Your task to perform on an android device: toggle sleep mode Image 0: 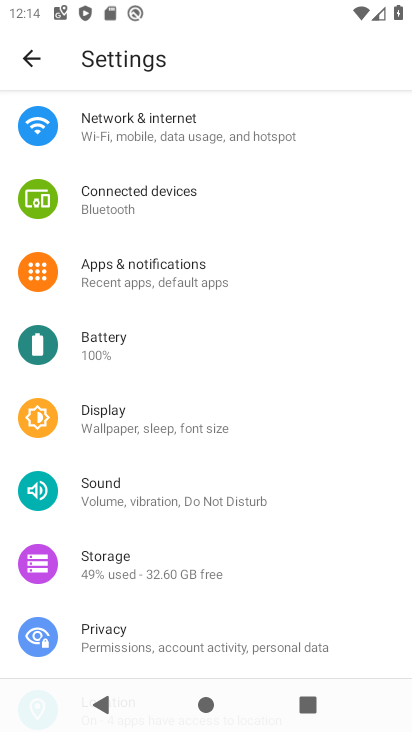
Step 0: click (90, 420)
Your task to perform on an android device: toggle sleep mode Image 1: 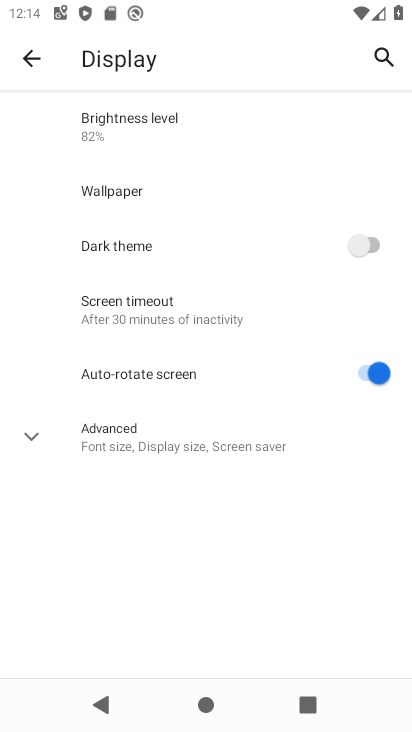
Step 1: click (140, 314)
Your task to perform on an android device: toggle sleep mode Image 2: 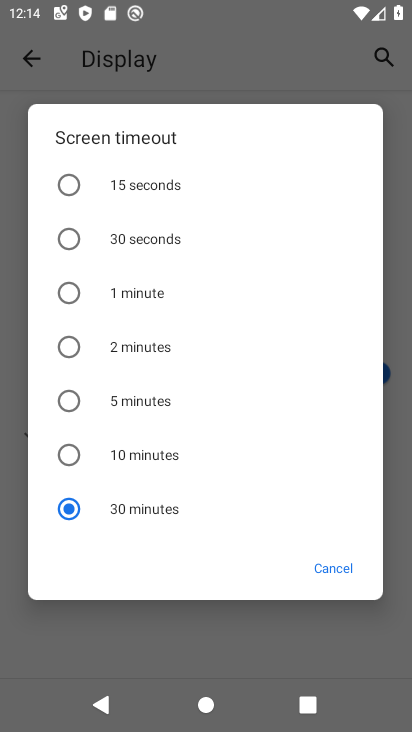
Step 2: click (140, 314)
Your task to perform on an android device: toggle sleep mode Image 3: 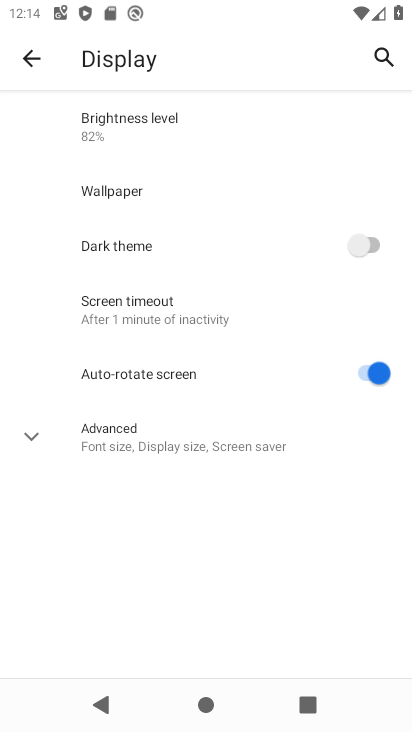
Step 3: click (127, 311)
Your task to perform on an android device: toggle sleep mode Image 4: 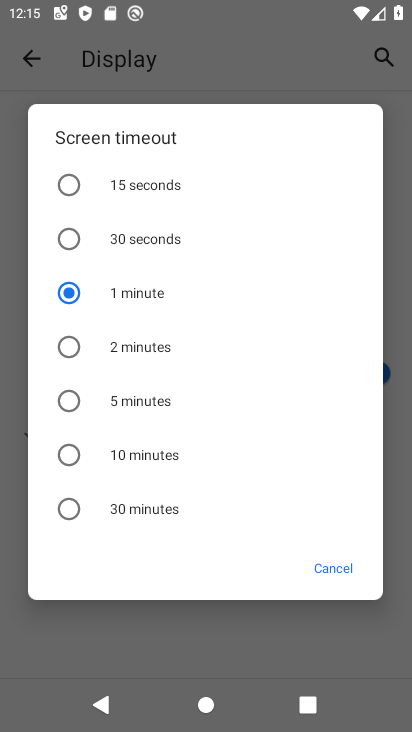
Step 4: click (69, 398)
Your task to perform on an android device: toggle sleep mode Image 5: 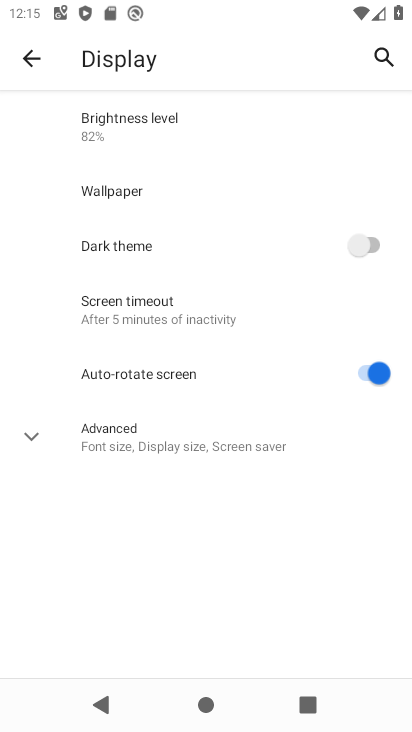
Step 5: task complete